Your task to perform on an android device: Show me recent news Image 0: 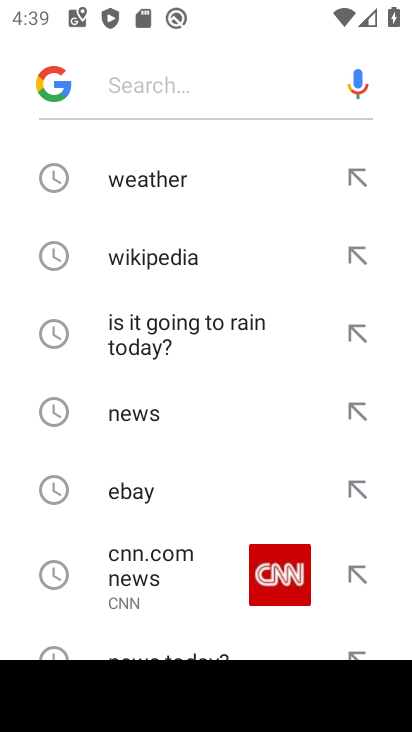
Step 0: press back button
Your task to perform on an android device: Show me recent news Image 1: 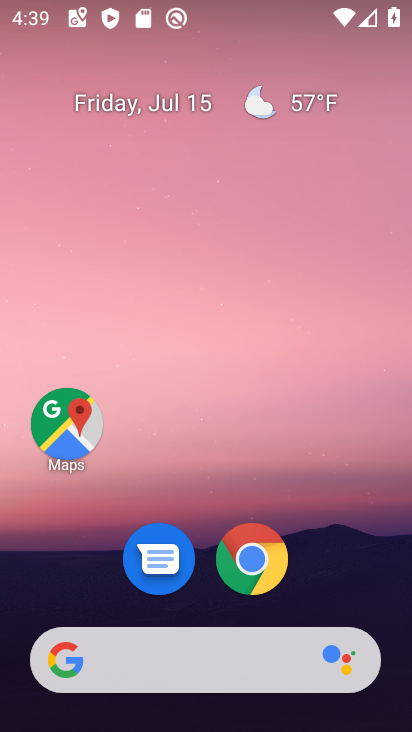
Step 1: click (179, 661)
Your task to perform on an android device: Show me recent news Image 2: 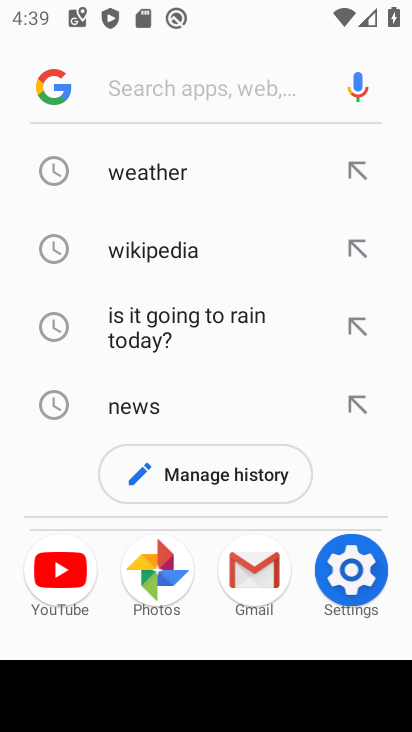
Step 2: click (176, 95)
Your task to perform on an android device: Show me recent news Image 3: 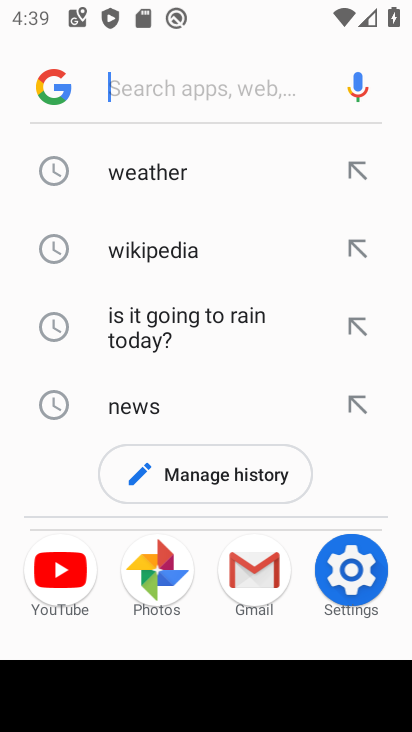
Step 3: type "recent news"
Your task to perform on an android device: Show me recent news Image 4: 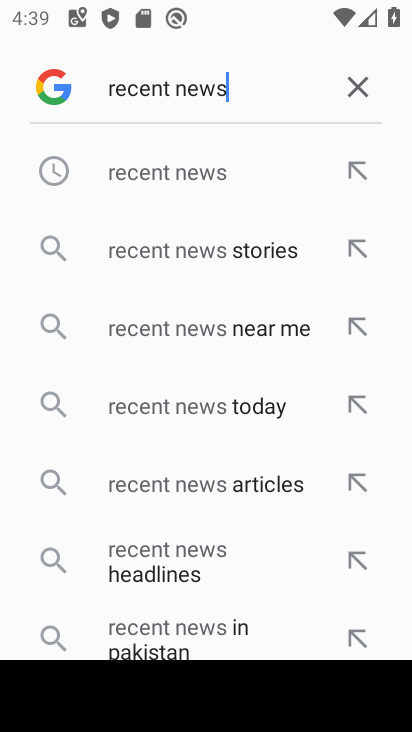
Step 4: click (186, 162)
Your task to perform on an android device: Show me recent news Image 5: 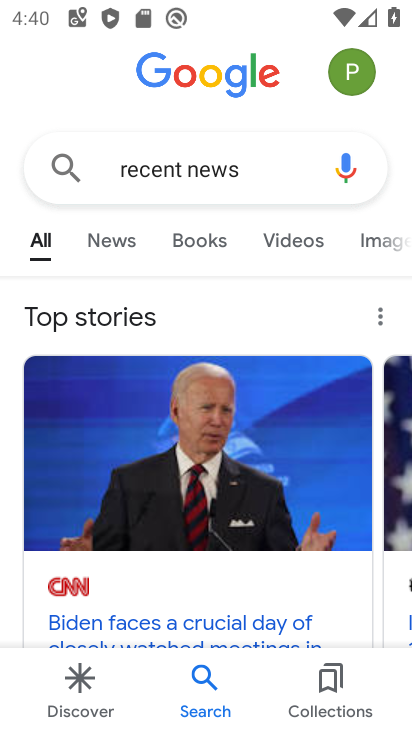
Step 5: task complete